Your task to perform on an android device: Search for Mexican restaurants on Maps Image 0: 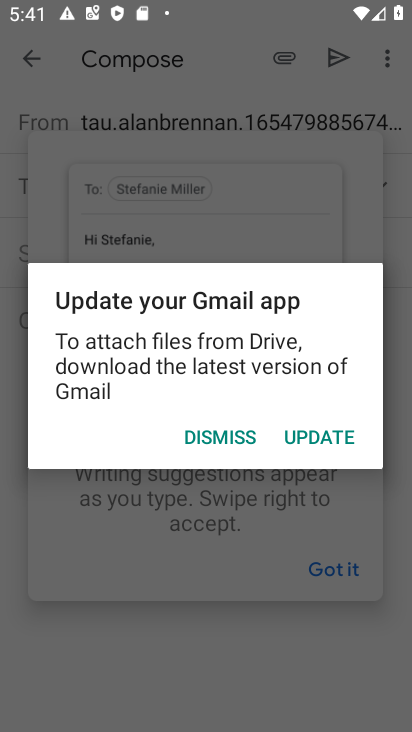
Step 0: click (193, 446)
Your task to perform on an android device: Search for Mexican restaurants on Maps Image 1: 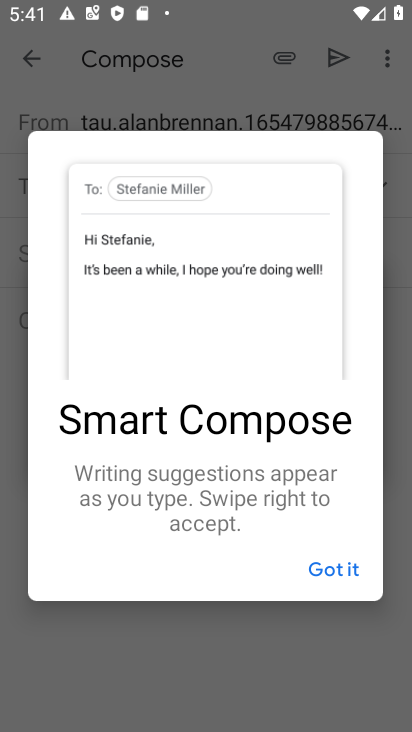
Step 1: click (325, 565)
Your task to perform on an android device: Search for Mexican restaurants on Maps Image 2: 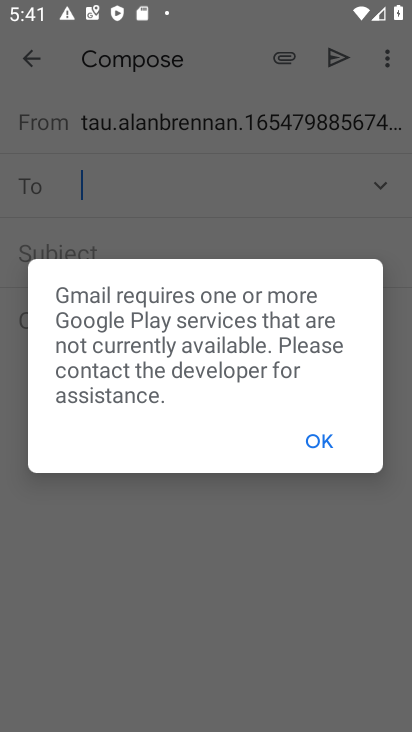
Step 2: click (298, 442)
Your task to perform on an android device: Search for Mexican restaurants on Maps Image 3: 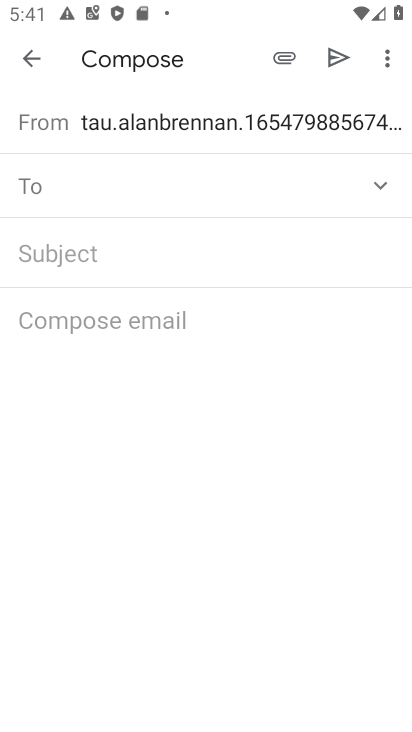
Step 3: press home button
Your task to perform on an android device: Search for Mexican restaurants on Maps Image 4: 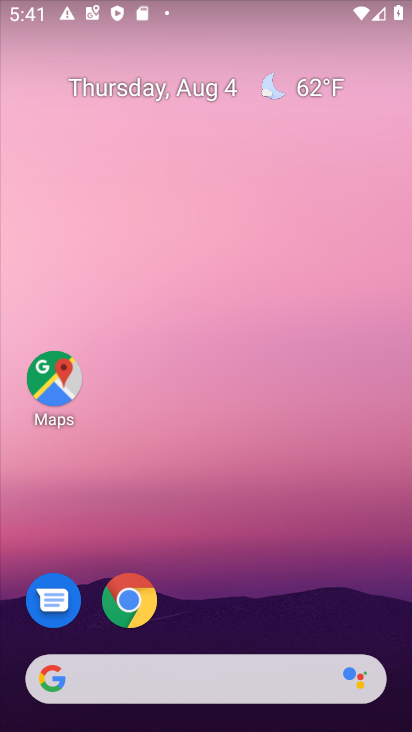
Step 4: click (49, 393)
Your task to perform on an android device: Search for Mexican restaurants on Maps Image 5: 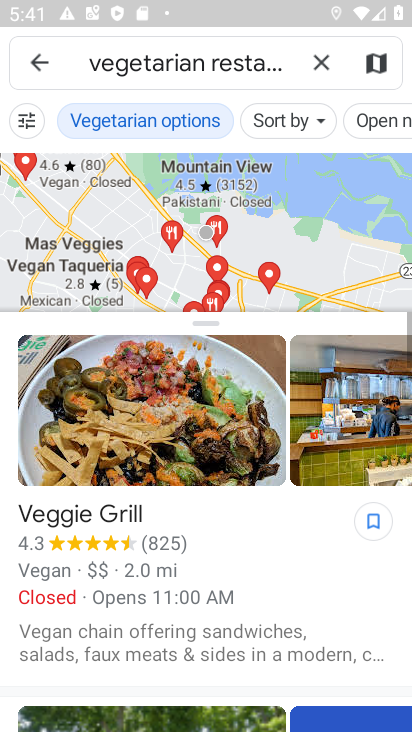
Step 5: click (327, 58)
Your task to perform on an android device: Search for Mexican restaurants on Maps Image 6: 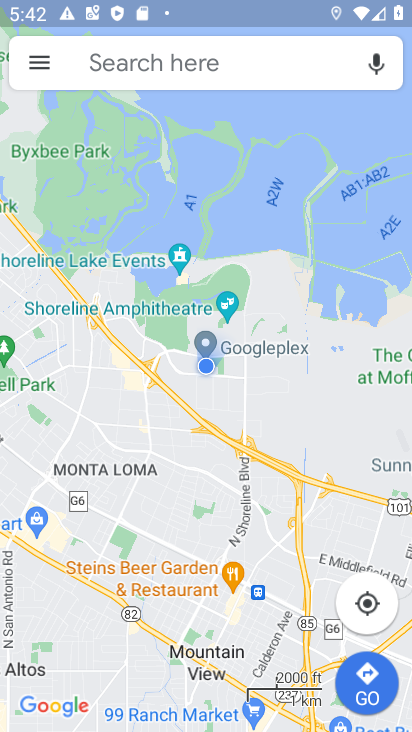
Step 6: click (155, 66)
Your task to perform on an android device: Search for Mexican restaurants on Maps Image 7: 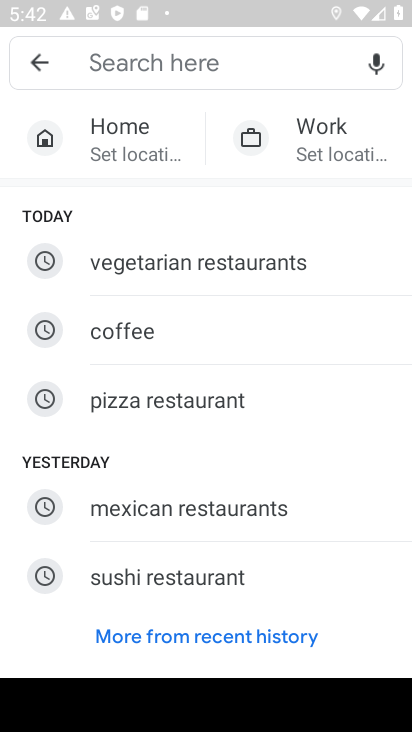
Step 7: click (146, 502)
Your task to perform on an android device: Search for Mexican restaurants on Maps Image 8: 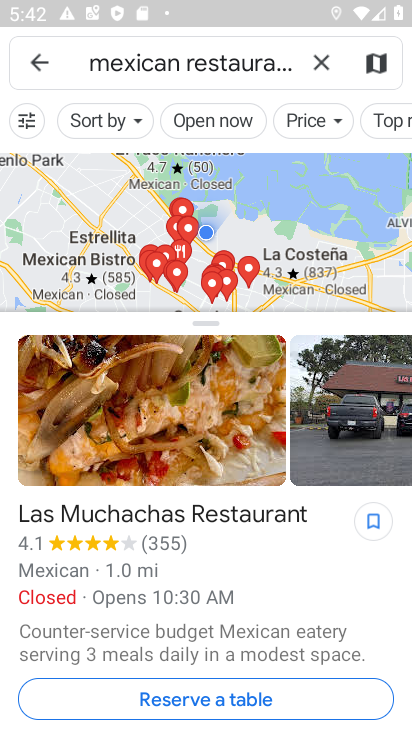
Step 8: task complete